Your task to perform on an android device: change the clock display to show seconds Image 0: 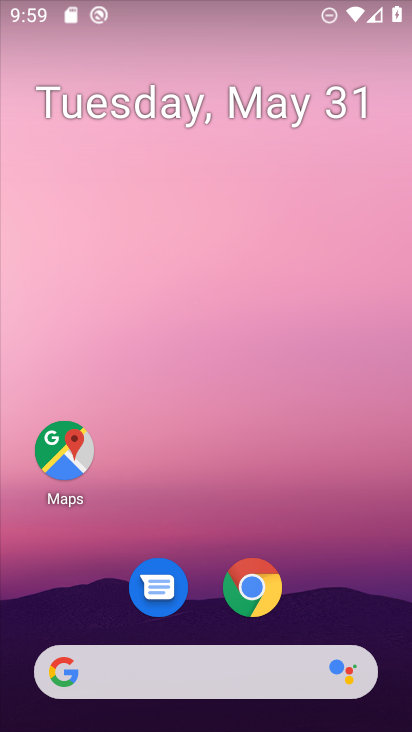
Step 0: press home button
Your task to perform on an android device: change the clock display to show seconds Image 1: 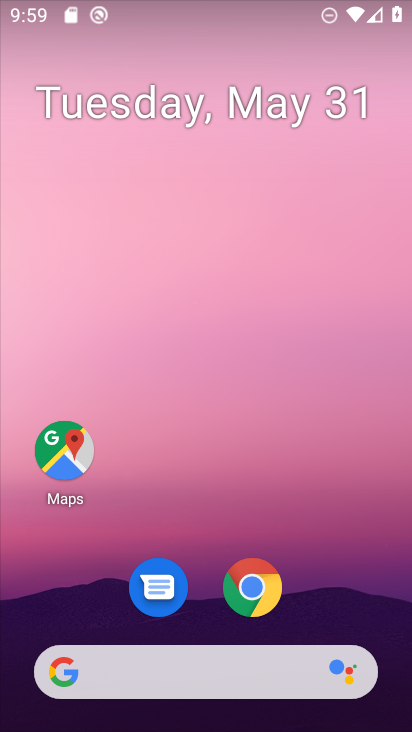
Step 1: drag from (207, 622) to (252, 57)
Your task to perform on an android device: change the clock display to show seconds Image 2: 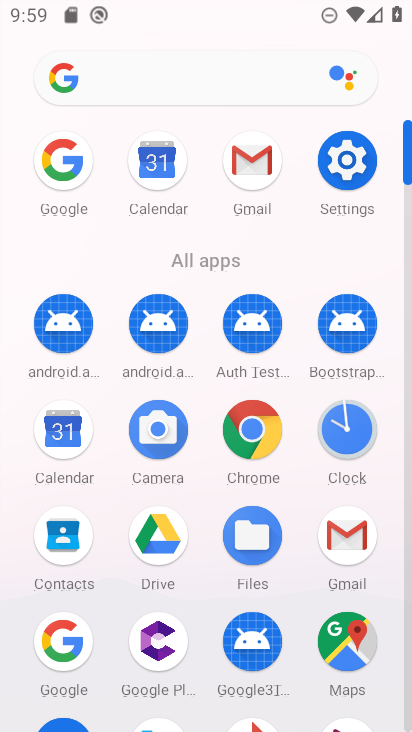
Step 2: click (346, 423)
Your task to perform on an android device: change the clock display to show seconds Image 3: 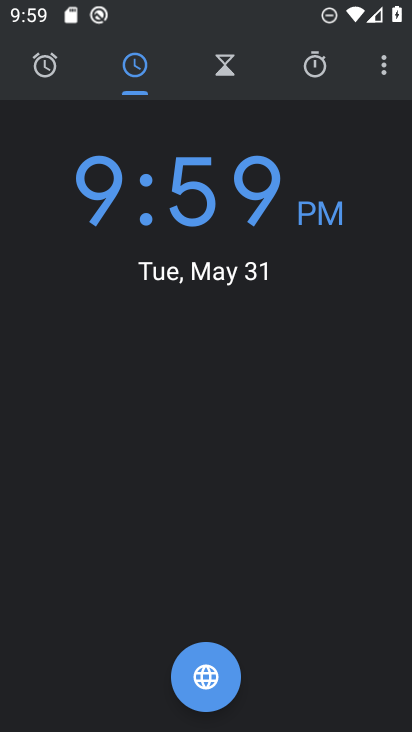
Step 3: click (381, 66)
Your task to perform on an android device: change the clock display to show seconds Image 4: 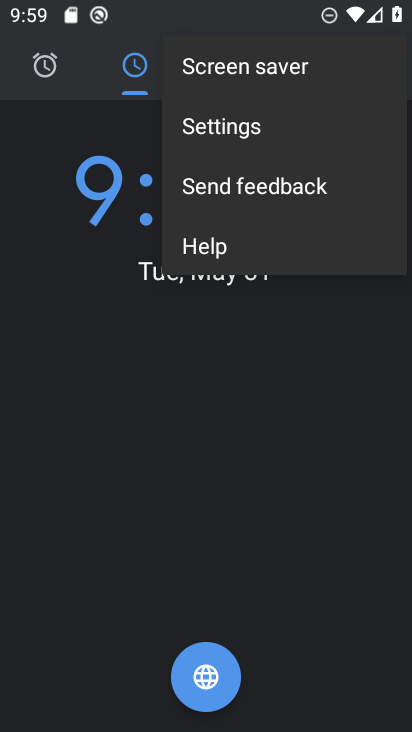
Step 4: click (258, 121)
Your task to perform on an android device: change the clock display to show seconds Image 5: 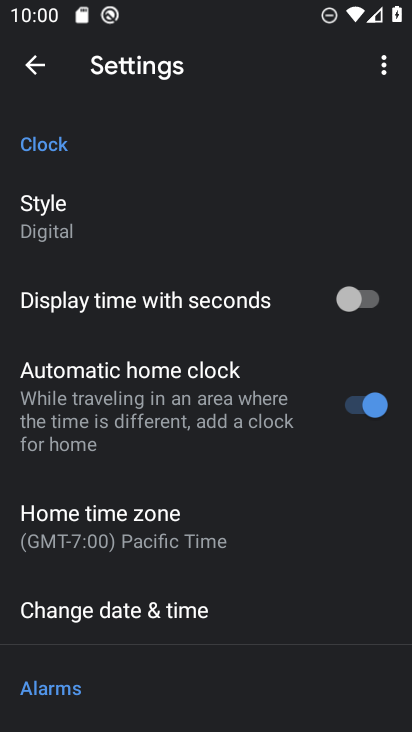
Step 5: click (361, 294)
Your task to perform on an android device: change the clock display to show seconds Image 6: 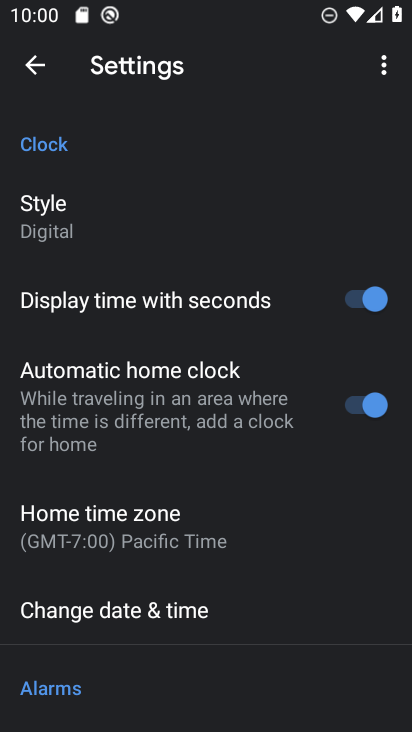
Step 6: task complete